Your task to perform on an android device: change notifications settings Image 0: 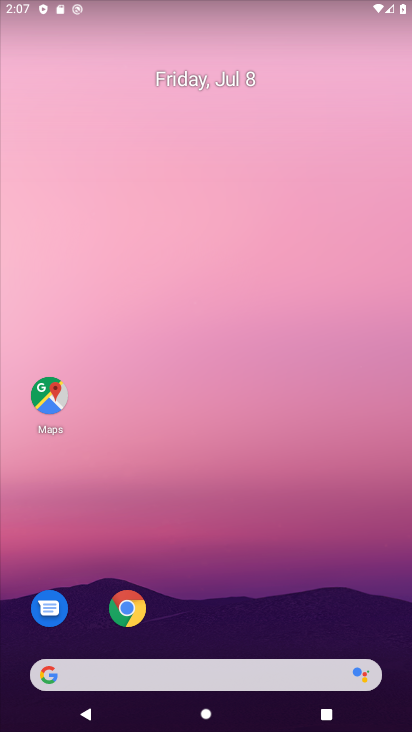
Step 0: drag from (263, 562) to (180, 268)
Your task to perform on an android device: change notifications settings Image 1: 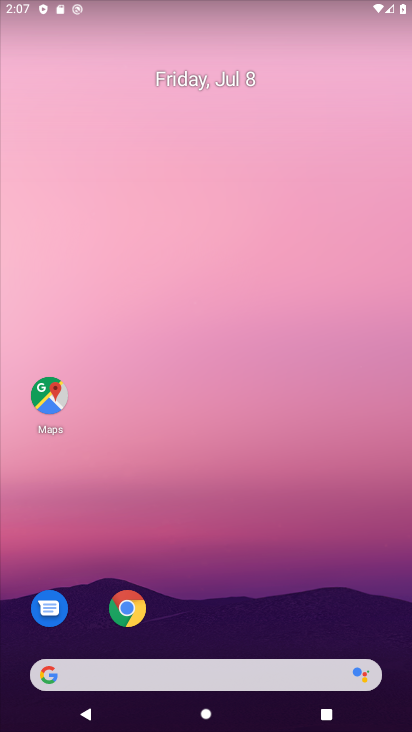
Step 1: drag from (282, 467) to (234, 244)
Your task to perform on an android device: change notifications settings Image 2: 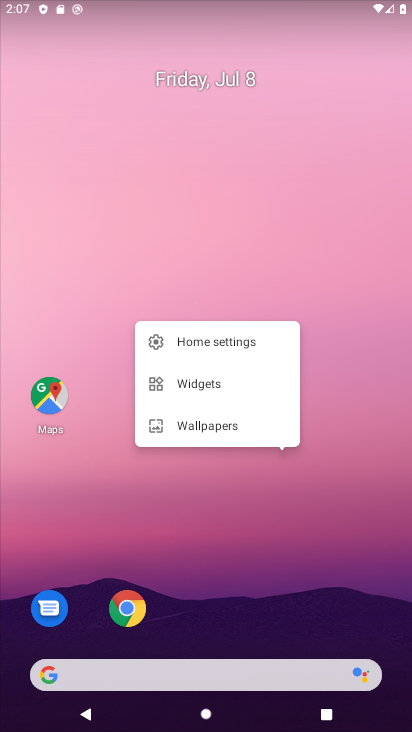
Step 2: click (300, 604)
Your task to perform on an android device: change notifications settings Image 3: 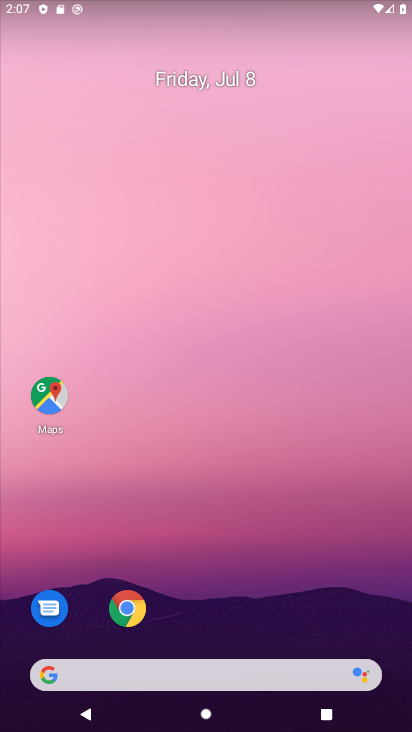
Step 3: drag from (300, 604) to (244, 38)
Your task to perform on an android device: change notifications settings Image 4: 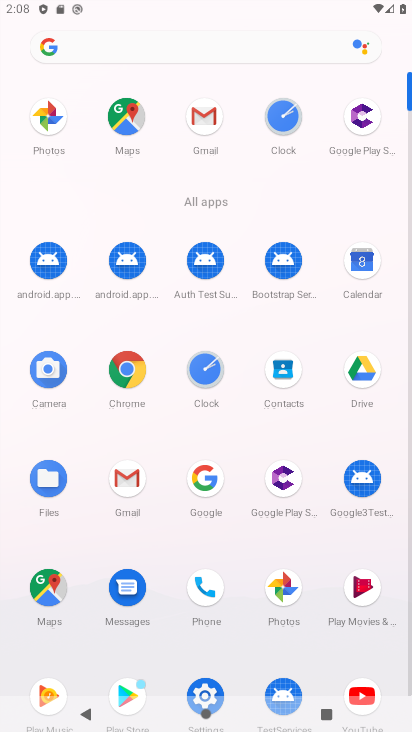
Step 4: click (209, 687)
Your task to perform on an android device: change notifications settings Image 5: 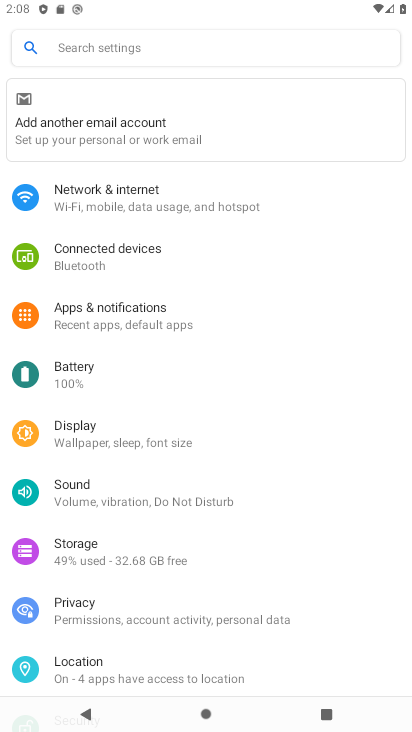
Step 5: click (82, 323)
Your task to perform on an android device: change notifications settings Image 6: 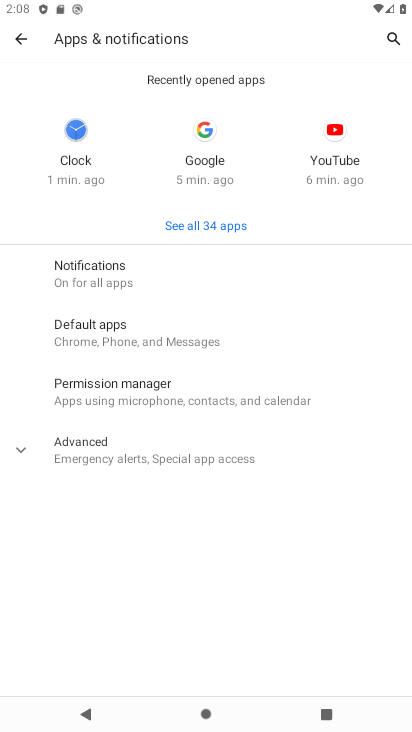
Step 6: click (89, 289)
Your task to perform on an android device: change notifications settings Image 7: 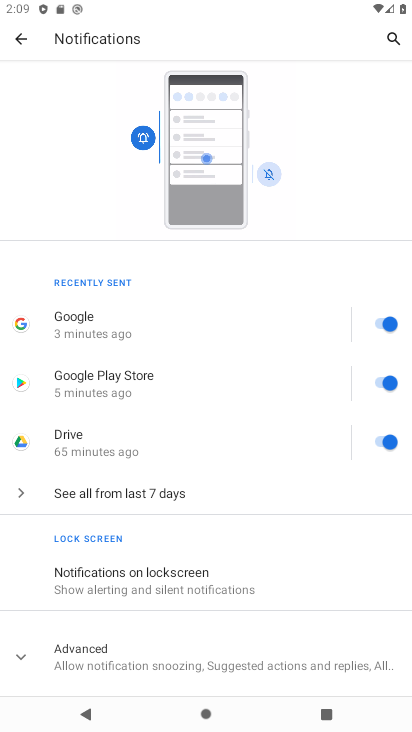
Step 7: click (378, 326)
Your task to perform on an android device: change notifications settings Image 8: 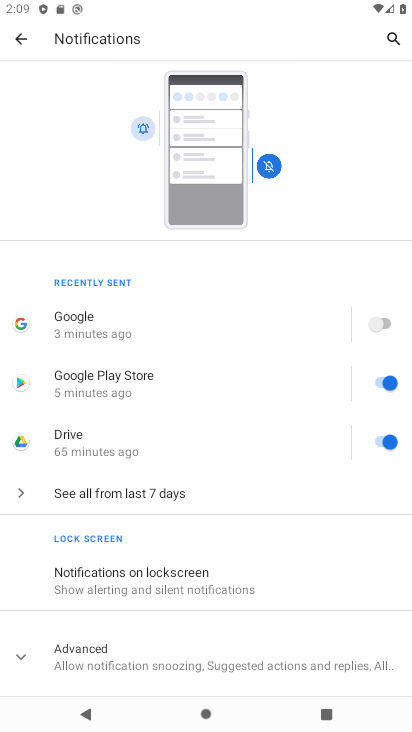
Step 8: task complete